Your task to perform on an android device: add a contact Image 0: 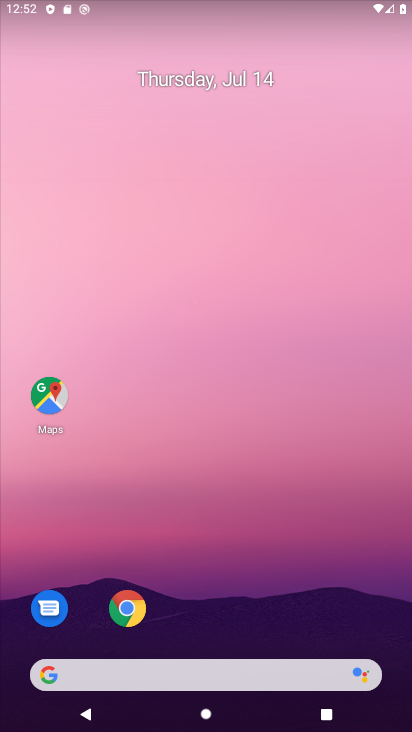
Step 0: drag from (376, 625) to (300, 130)
Your task to perform on an android device: add a contact Image 1: 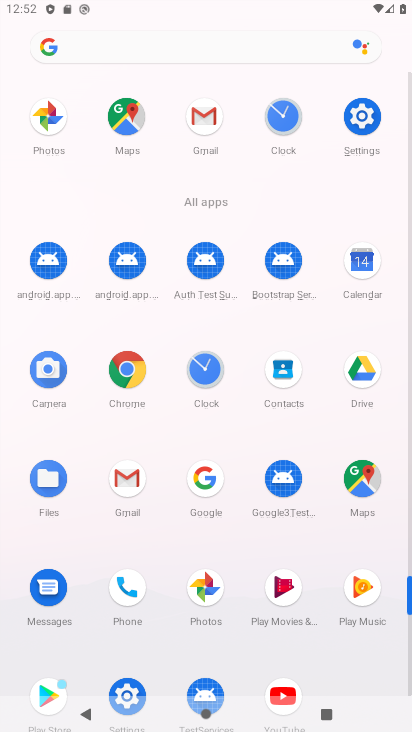
Step 1: click (284, 371)
Your task to perform on an android device: add a contact Image 2: 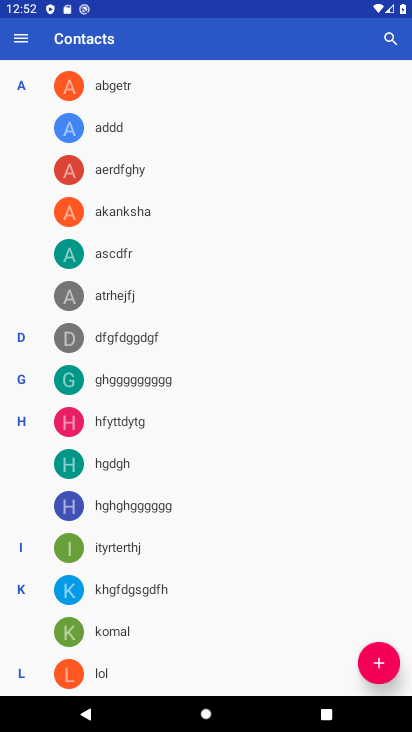
Step 2: click (381, 661)
Your task to perform on an android device: add a contact Image 3: 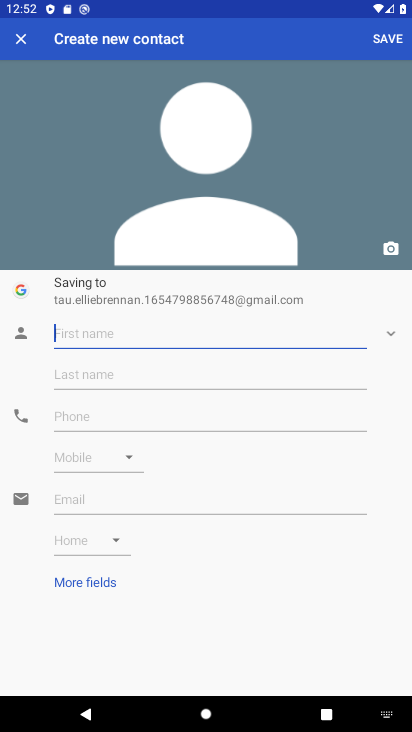
Step 3: type "rrtihgfkg"
Your task to perform on an android device: add a contact Image 4: 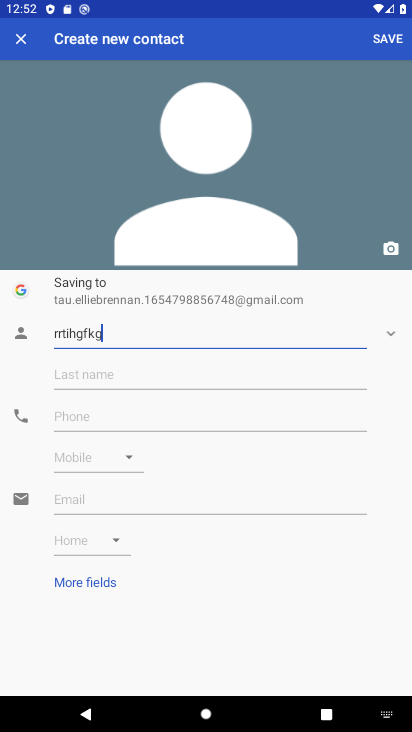
Step 4: click (90, 413)
Your task to perform on an android device: add a contact Image 5: 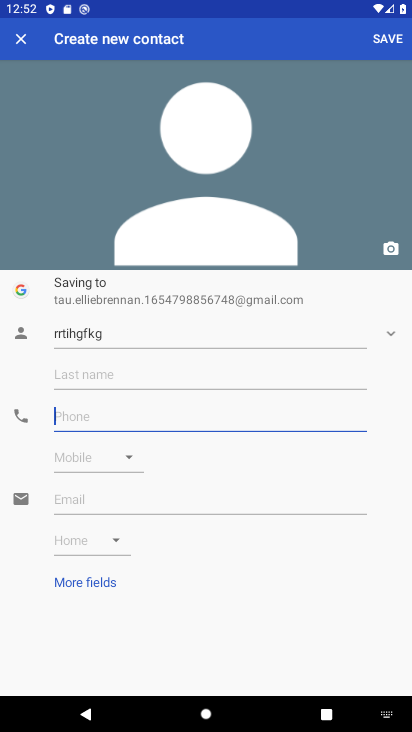
Step 5: type "0987654678"
Your task to perform on an android device: add a contact Image 6: 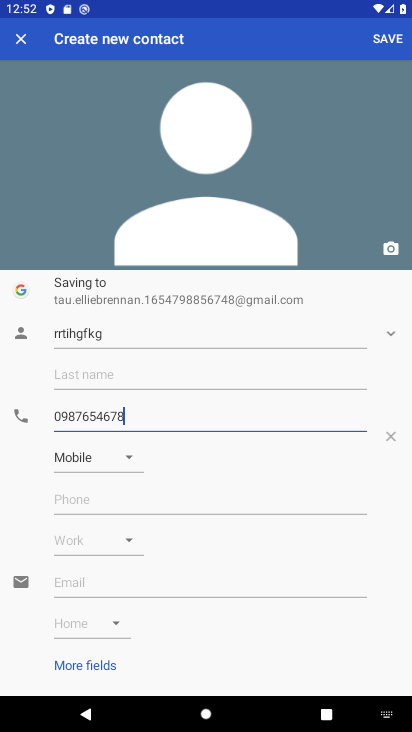
Step 6: click (384, 37)
Your task to perform on an android device: add a contact Image 7: 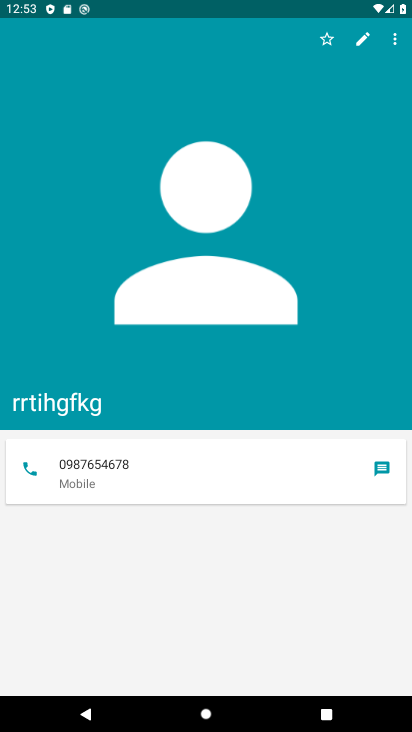
Step 7: task complete